Your task to perform on an android device: Open the map Image 0: 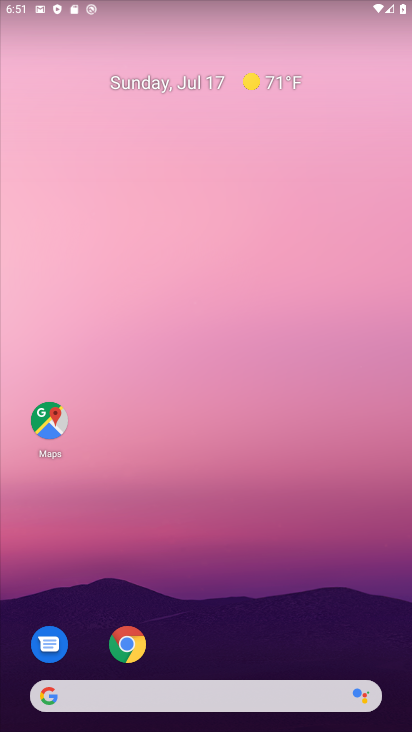
Step 0: click (54, 413)
Your task to perform on an android device: Open the map Image 1: 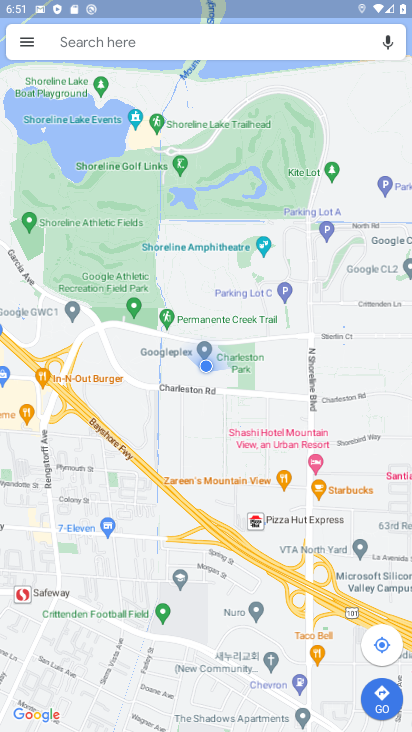
Step 1: task complete